Your task to perform on an android device: open app "Google Docs" (install if not already installed) Image 0: 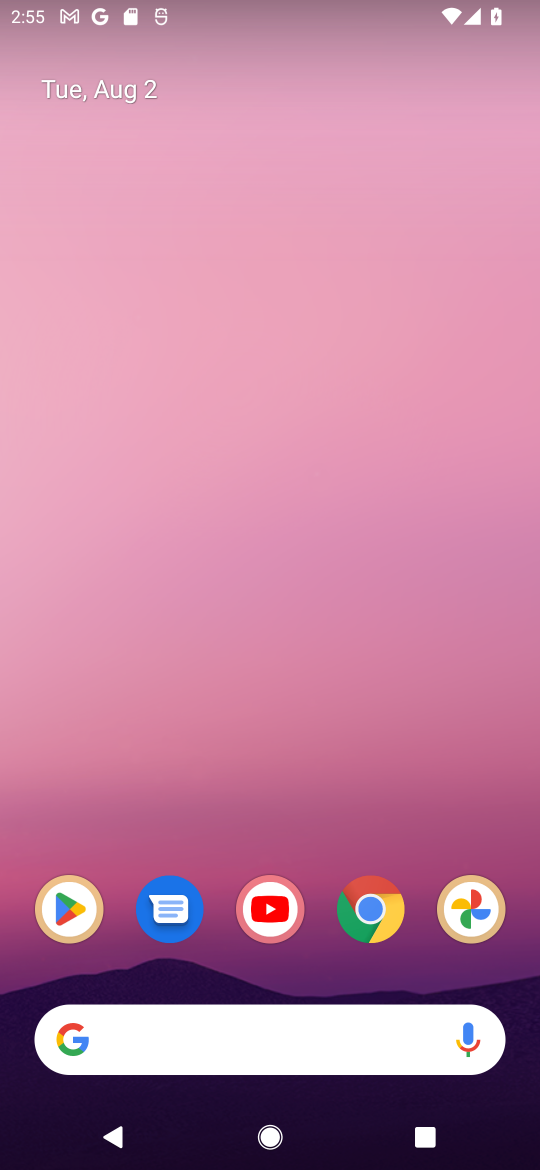
Step 0: drag from (248, 926) to (387, 164)
Your task to perform on an android device: open app "Google Docs" (install if not already installed) Image 1: 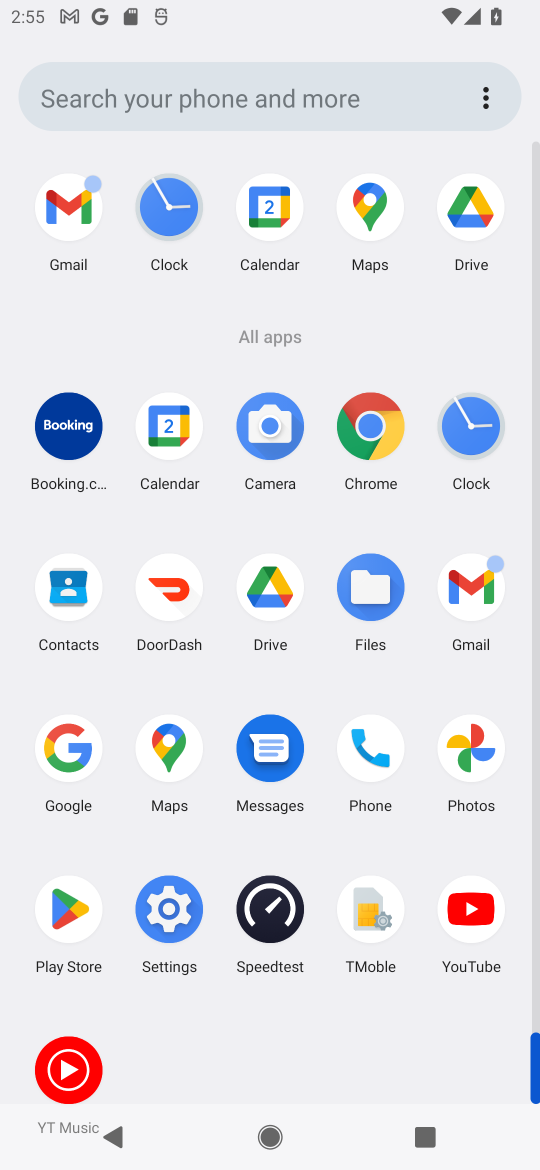
Step 1: click (70, 922)
Your task to perform on an android device: open app "Google Docs" (install if not already installed) Image 2: 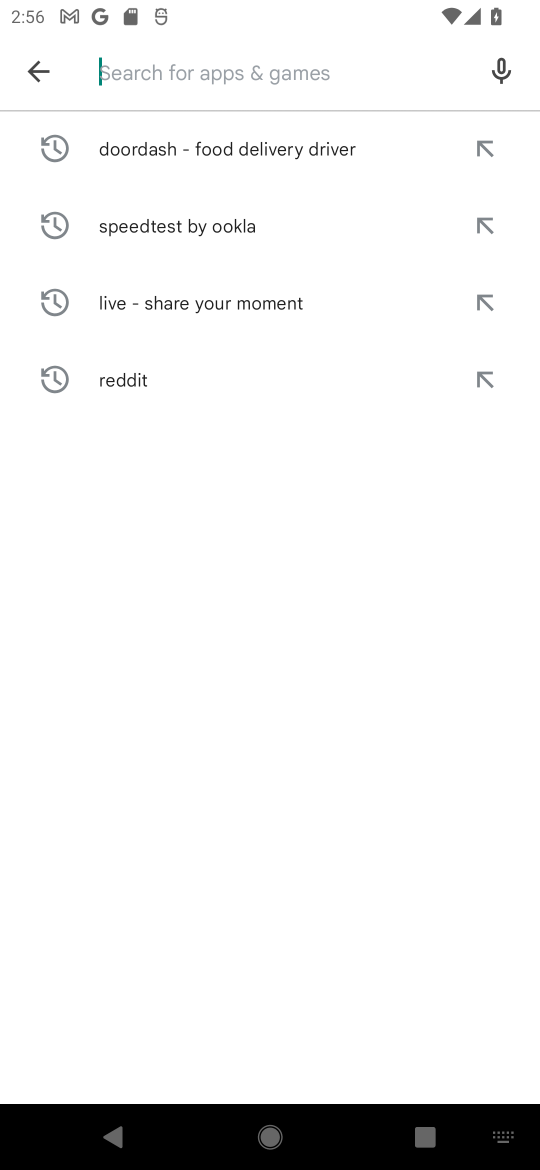
Step 2: type "Google Docs"
Your task to perform on an android device: open app "Google Docs" (install if not already installed) Image 3: 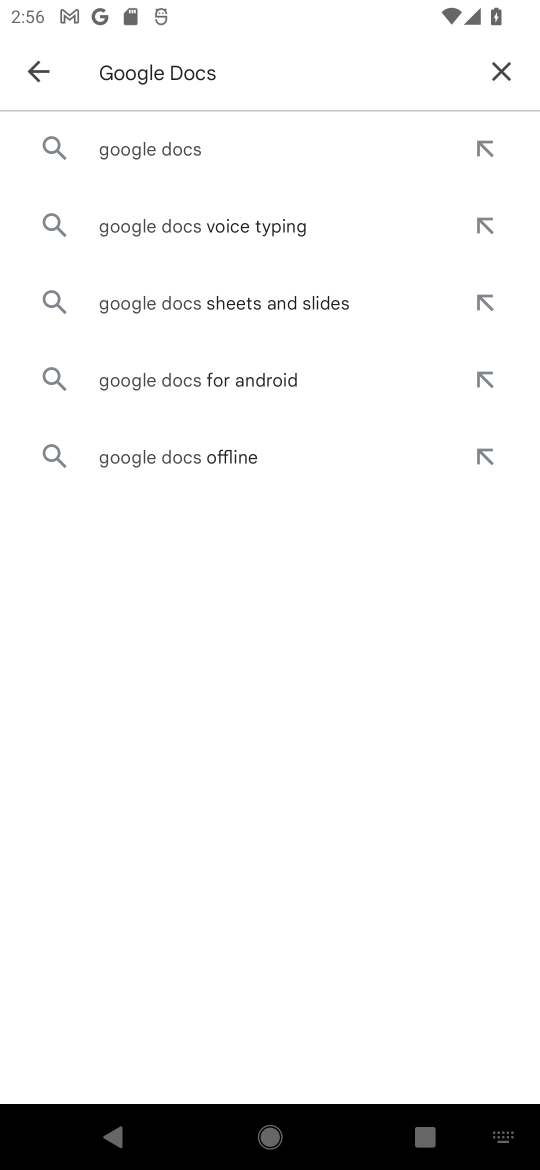
Step 3: click (171, 157)
Your task to perform on an android device: open app "Google Docs" (install if not already installed) Image 4: 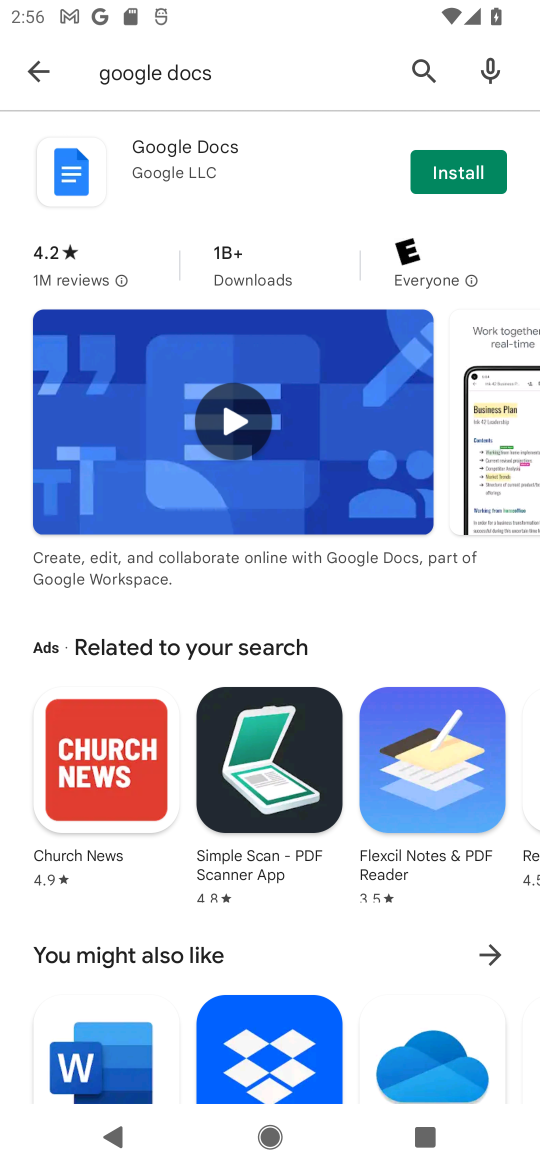
Step 4: click (457, 173)
Your task to perform on an android device: open app "Google Docs" (install if not already installed) Image 5: 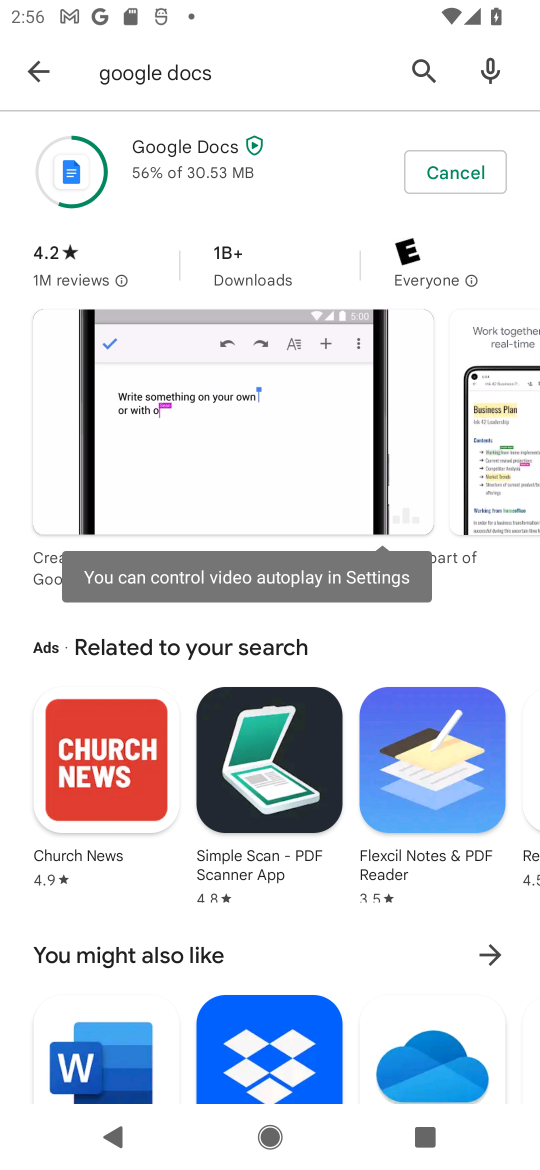
Step 5: click (158, 140)
Your task to perform on an android device: open app "Google Docs" (install if not already installed) Image 6: 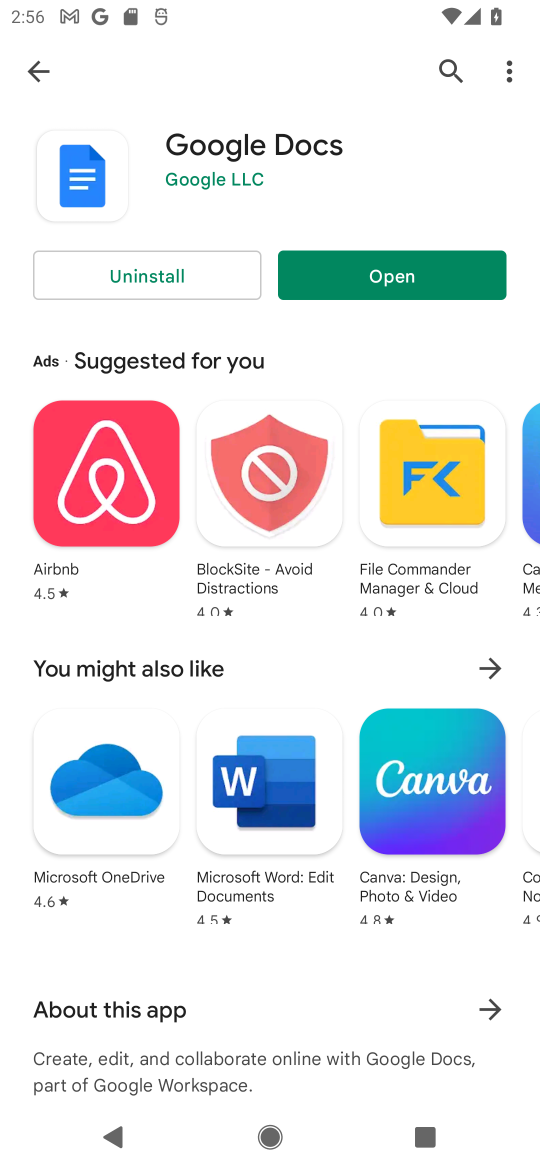
Step 6: click (360, 276)
Your task to perform on an android device: open app "Google Docs" (install if not already installed) Image 7: 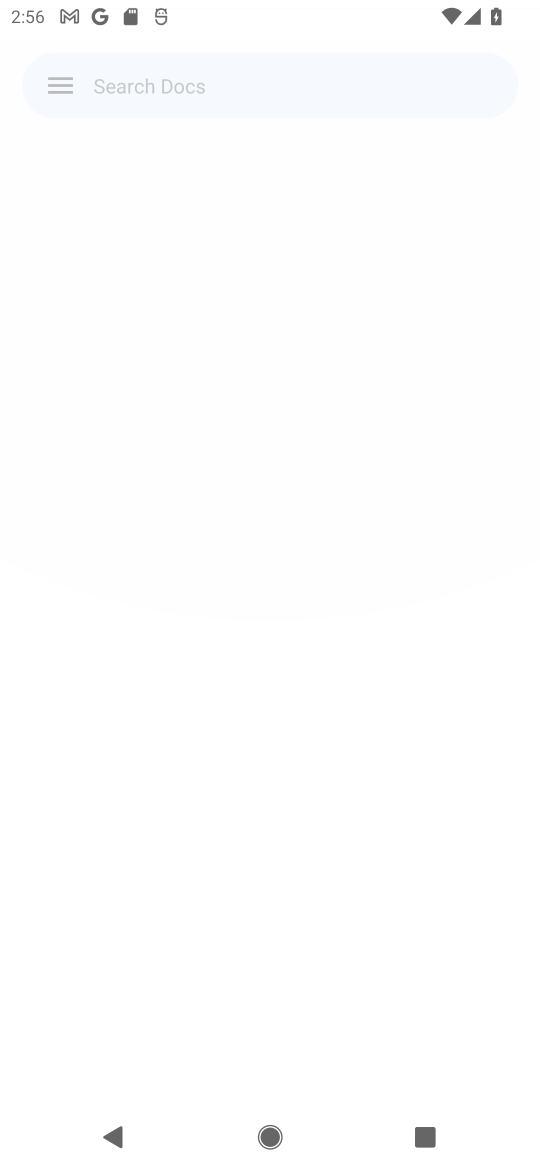
Step 7: task complete